Your task to perform on an android device: star an email in the gmail app Image 0: 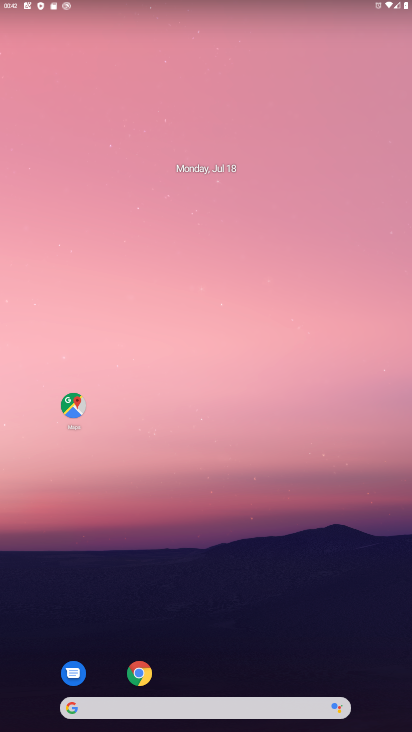
Step 0: drag from (246, 675) to (196, 242)
Your task to perform on an android device: star an email in the gmail app Image 1: 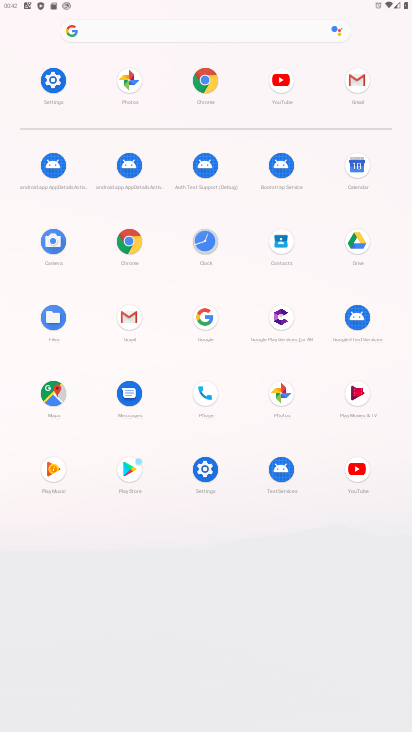
Step 1: click (352, 84)
Your task to perform on an android device: star an email in the gmail app Image 2: 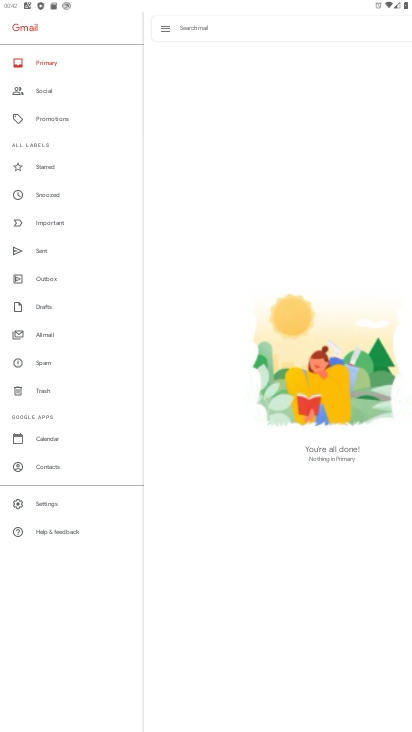
Step 2: click (57, 157)
Your task to perform on an android device: star an email in the gmail app Image 3: 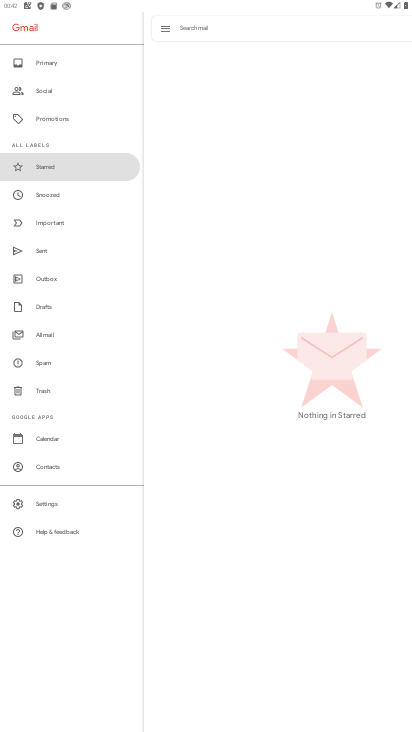
Step 3: task complete